Your task to perform on an android device: find snoozed emails in the gmail app Image 0: 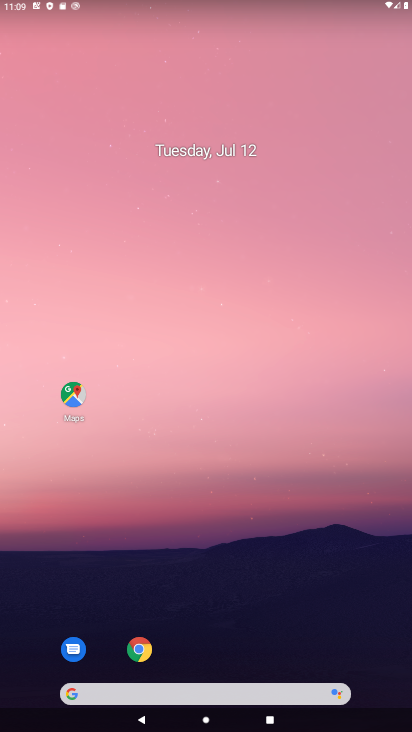
Step 0: drag from (369, 663) to (326, 79)
Your task to perform on an android device: find snoozed emails in the gmail app Image 1: 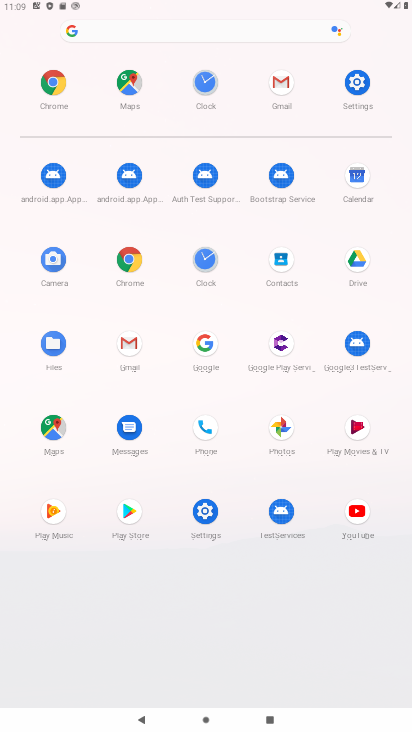
Step 1: click (126, 342)
Your task to perform on an android device: find snoozed emails in the gmail app Image 2: 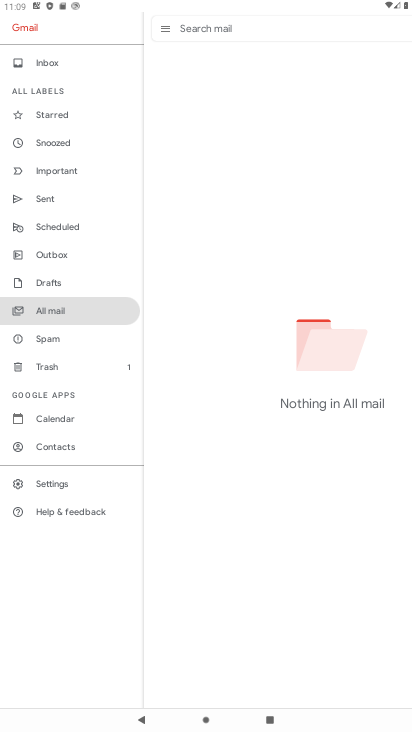
Step 2: click (53, 138)
Your task to perform on an android device: find snoozed emails in the gmail app Image 3: 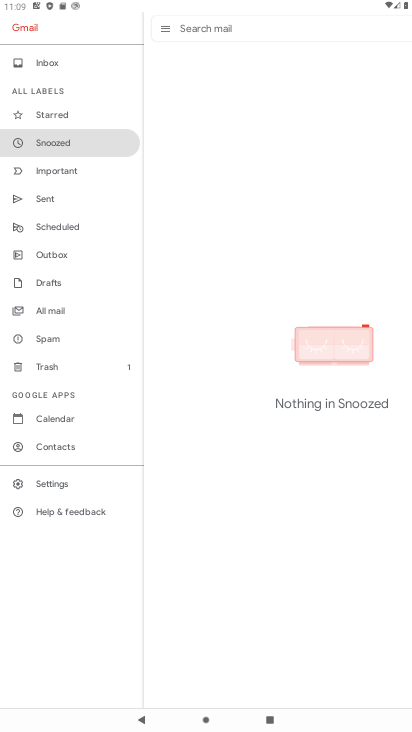
Step 3: task complete